Your task to perform on an android device: Go to display settings Image 0: 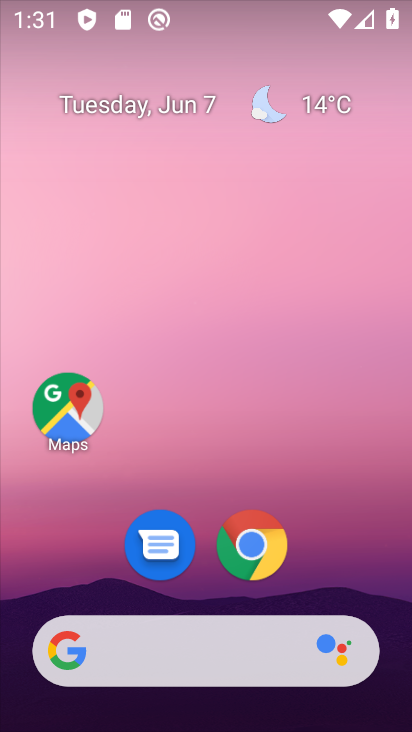
Step 0: drag from (279, 198) to (84, 68)
Your task to perform on an android device: Go to display settings Image 1: 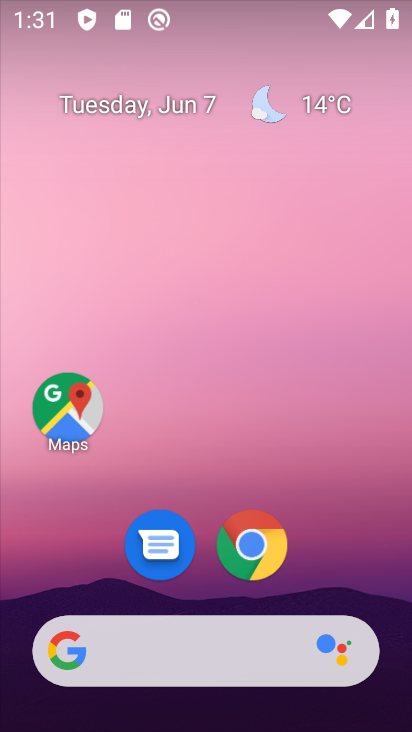
Step 1: drag from (348, 489) to (157, 42)
Your task to perform on an android device: Go to display settings Image 2: 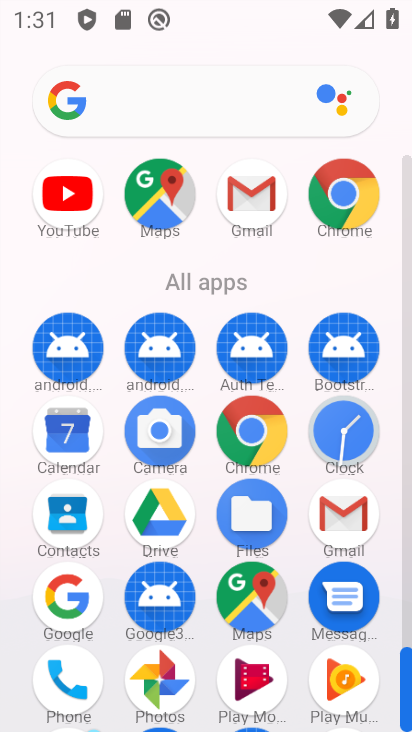
Step 2: drag from (213, 586) to (231, 37)
Your task to perform on an android device: Go to display settings Image 3: 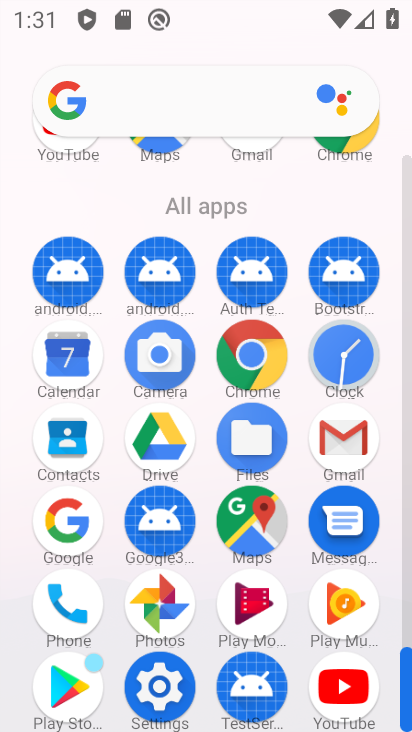
Step 3: click (168, 694)
Your task to perform on an android device: Go to display settings Image 4: 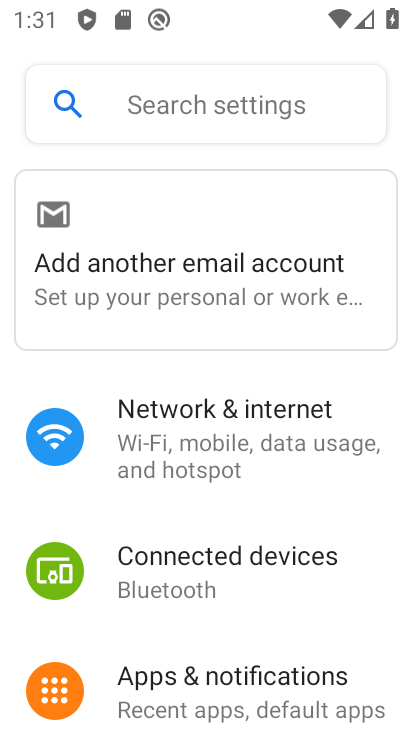
Step 4: drag from (242, 643) to (270, 154)
Your task to perform on an android device: Go to display settings Image 5: 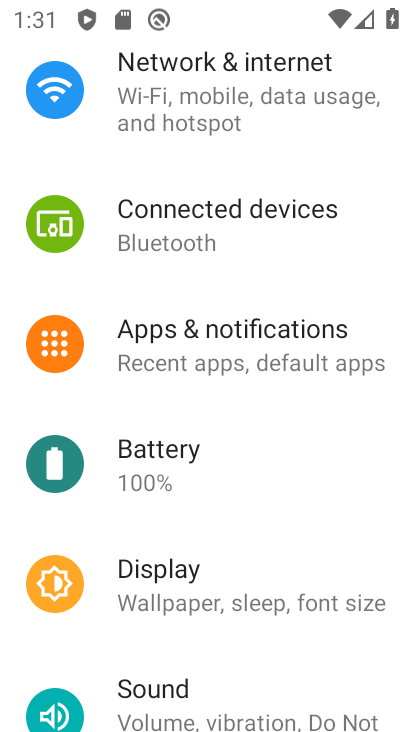
Step 5: click (227, 582)
Your task to perform on an android device: Go to display settings Image 6: 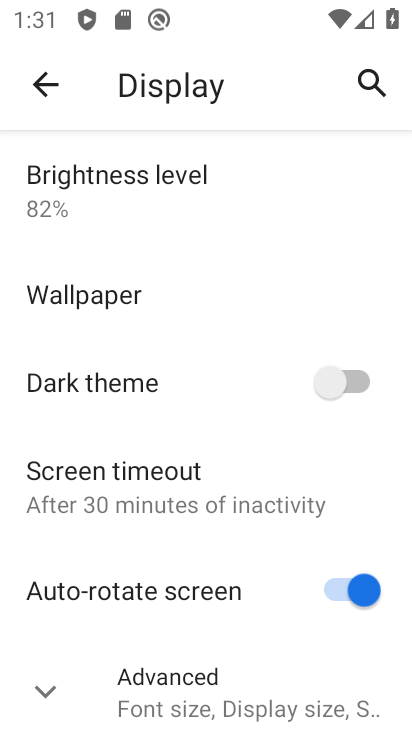
Step 6: task complete